Your task to perform on an android device: What is the recent news? Image 0: 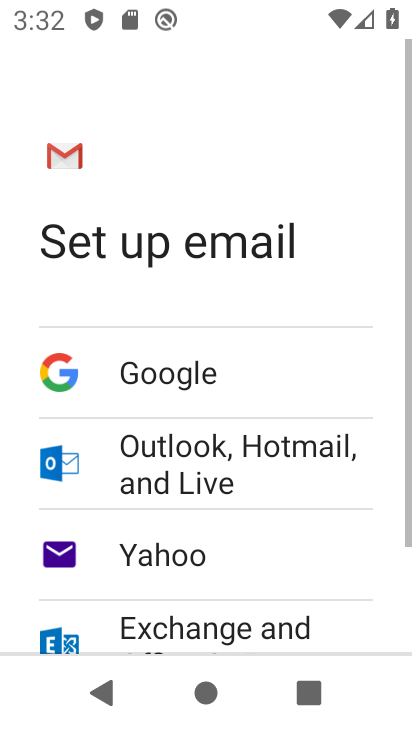
Step 0: press back button
Your task to perform on an android device: What is the recent news? Image 1: 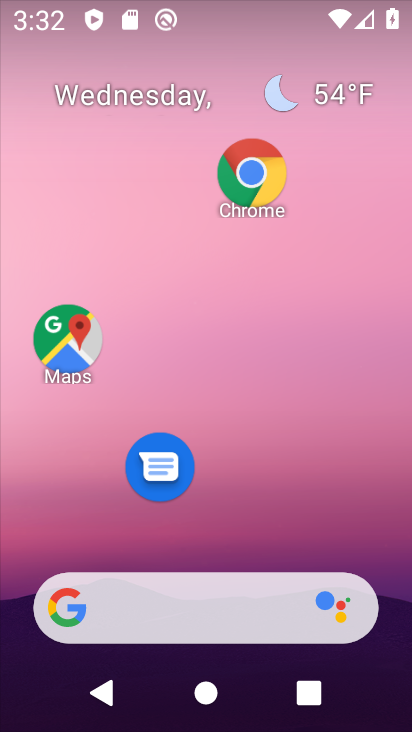
Step 1: drag from (265, 561) to (283, 72)
Your task to perform on an android device: What is the recent news? Image 2: 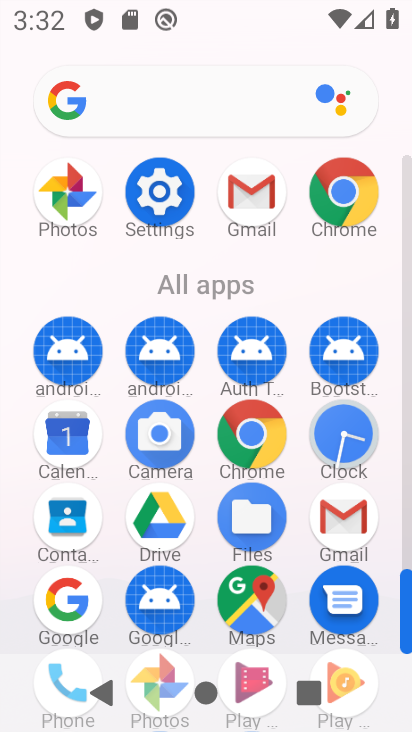
Step 2: click (148, 107)
Your task to perform on an android device: What is the recent news? Image 3: 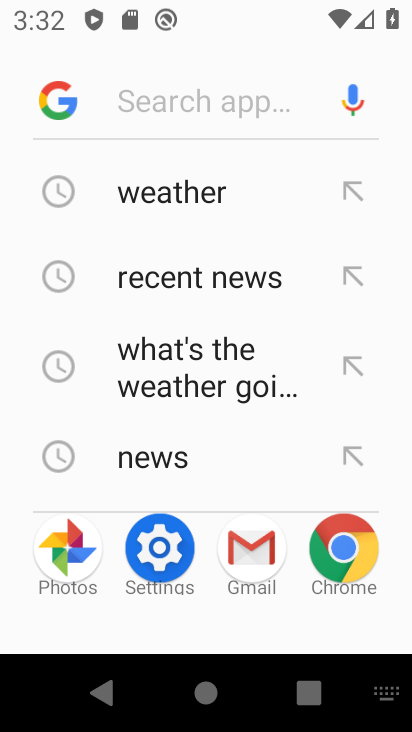
Step 3: click (164, 279)
Your task to perform on an android device: What is the recent news? Image 4: 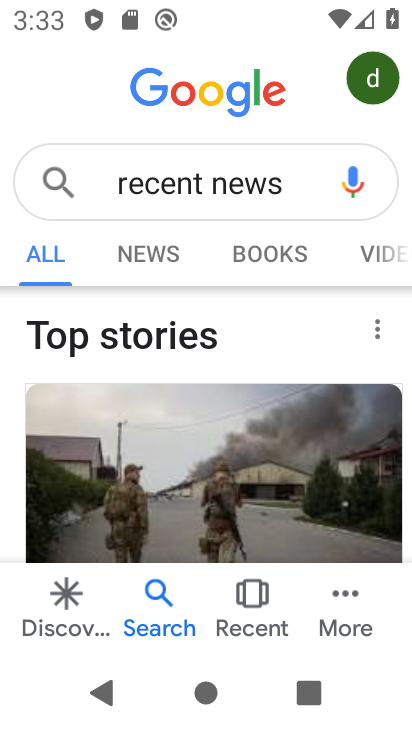
Step 4: task complete